Your task to perform on an android device: check battery use Image 0: 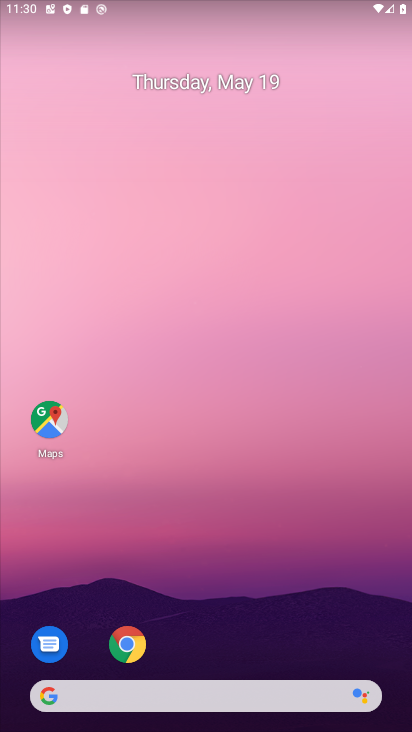
Step 0: drag from (213, 665) to (117, 28)
Your task to perform on an android device: check battery use Image 1: 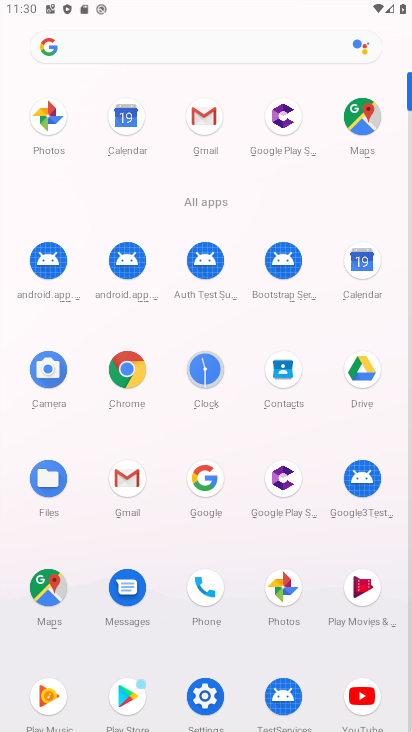
Step 1: click (210, 685)
Your task to perform on an android device: check battery use Image 2: 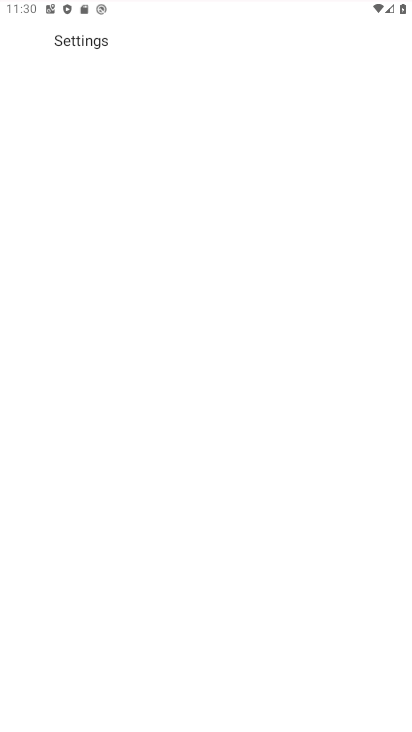
Step 2: drag from (212, 683) to (173, 225)
Your task to perform on an android device: check battery use Image 3: 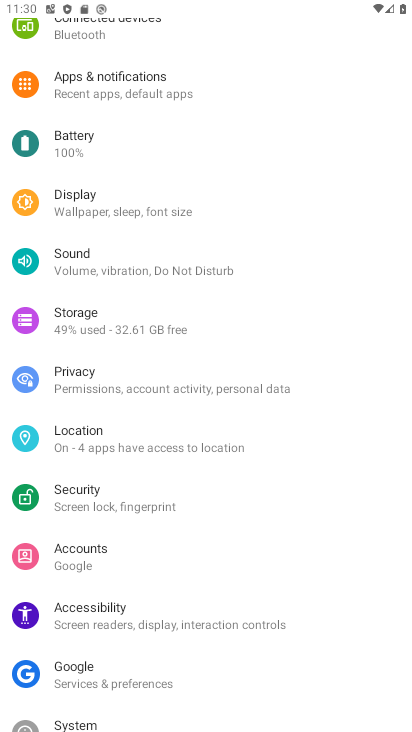
Step 3: click (86, 155)
Your task to perform on an android device: check battery use Image 4: 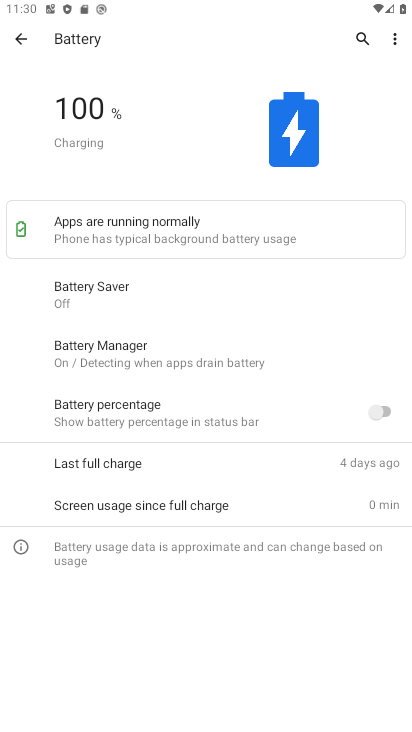
Step 4: click (392, 42)
Your task to perform on an android device: check battery use Image 5: 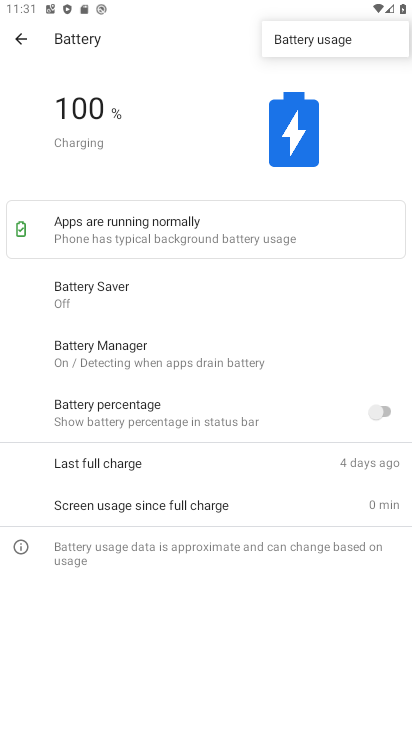
Step 5: click (338, 43)
Your task to perform on an android device: check battery use Image 6: 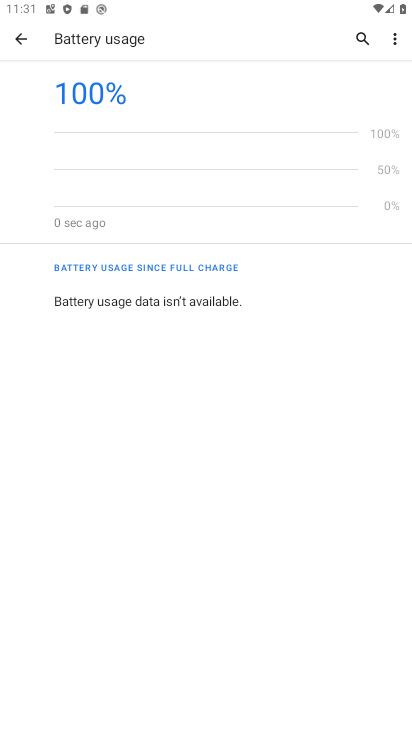
Step 6: task complete